Your task to perform on an android device: Open Maps and search for coffee Image 0: 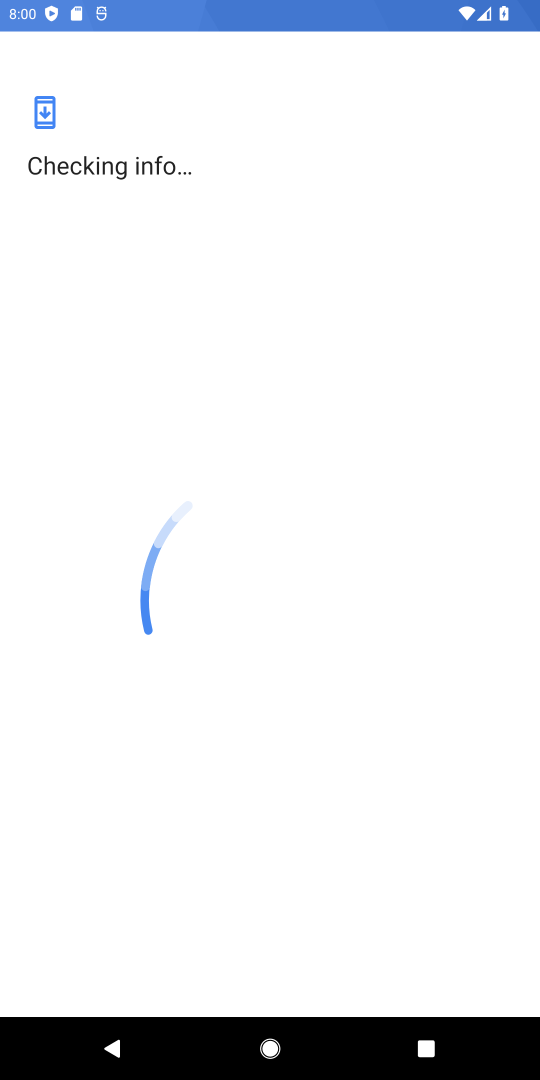
Step 0: press home button
Your task to perform on an android device: Open Maps and search for coffee Image 1: 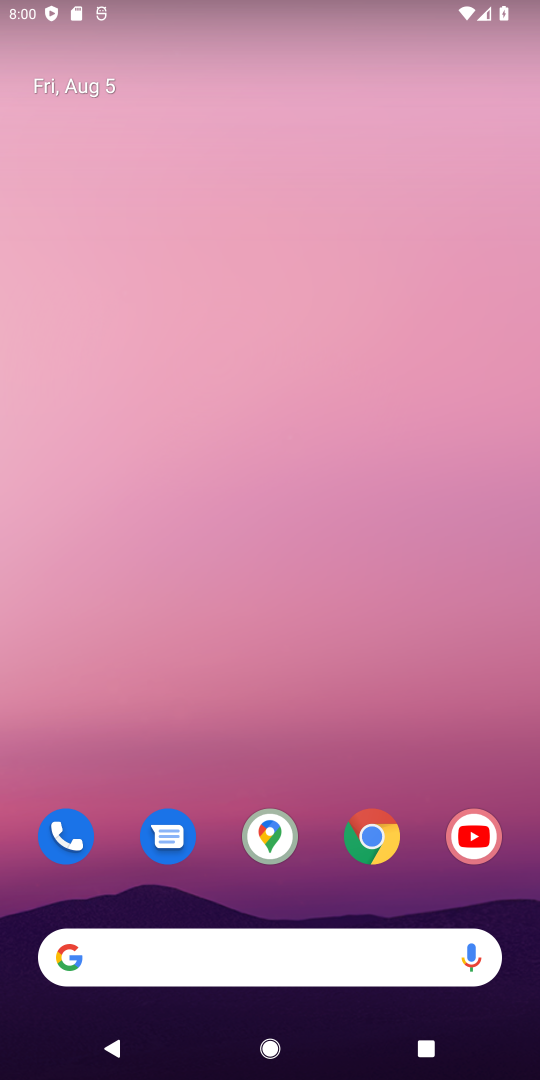
Step 1: click (264, 842)
Your task to perform on an android device: Open Maps and search for coffee Image 2: 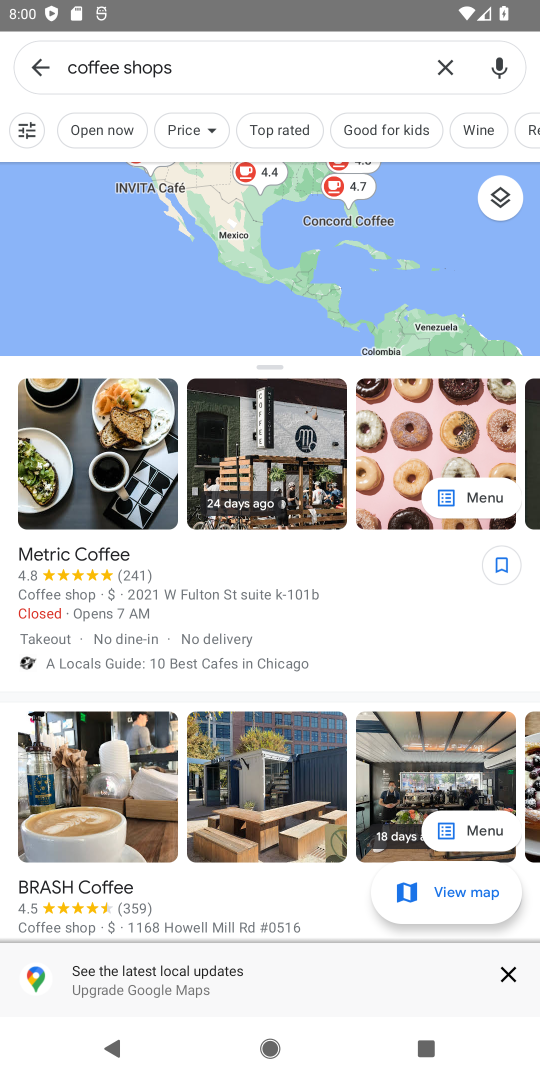
Step 2: task complete